Your task to perform on an android device: What is the recent news? Image 0: 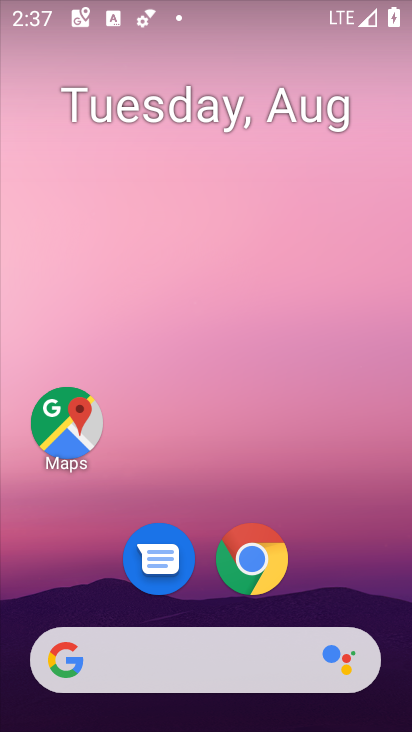
Step 0: drag from (199, 479) to (197, 168)
Your task to perform on an android device: What is the recent news? Image 1: 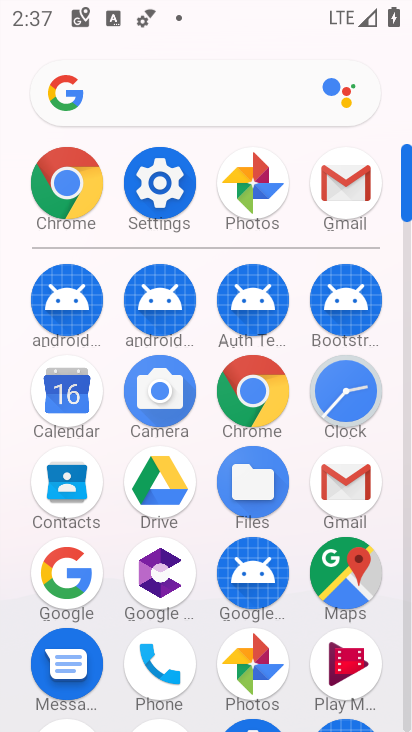
Step 1: click (63, 573)
Your task to perform on an android device: What is the recent news? Image 2: 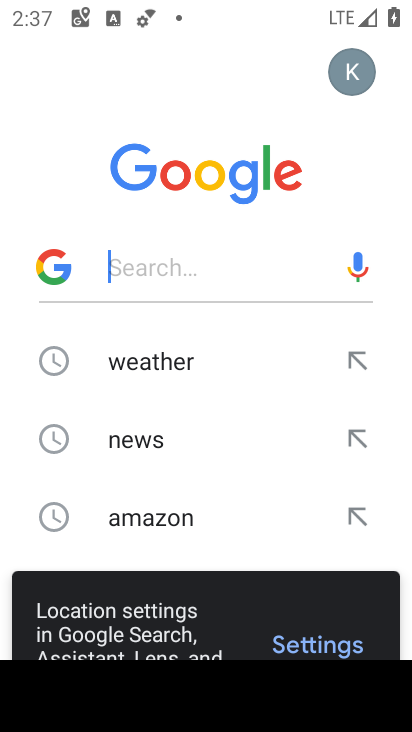
Step 2: click (184, 269)
Your task to perform on an android device: What is the recent news? Image 3: 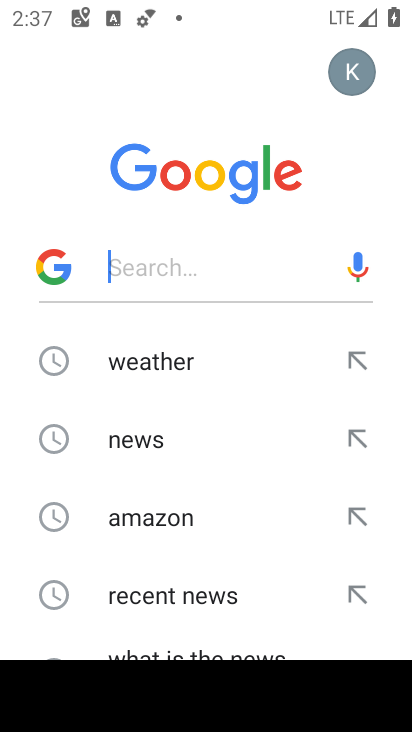
Step 3: click (144, 430)
Your task to perform on an android device: What is the recent news? Image 4: 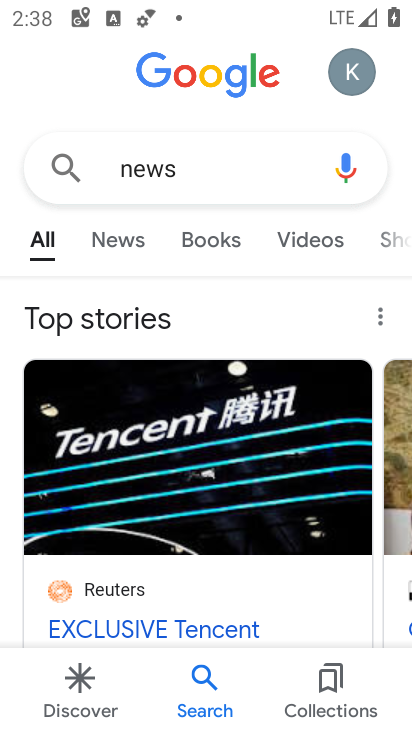
Step 4: click (136, 235)
Your task to perform on an android device: What is the recent news? Image 5: 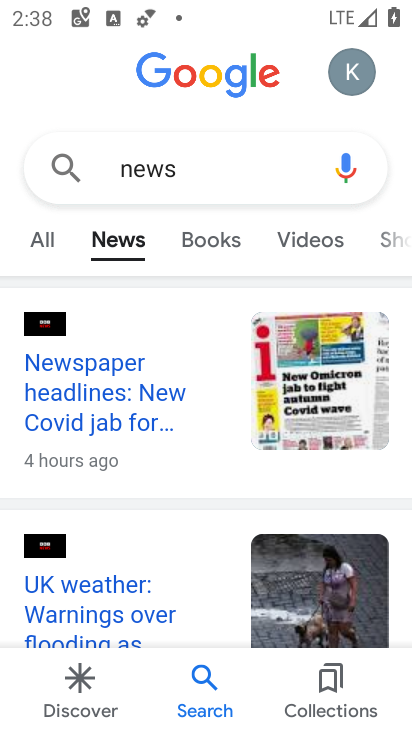
Step 5: task complete